Your task to perform on an android device: What's on my calendar tomorrow? Image 0: 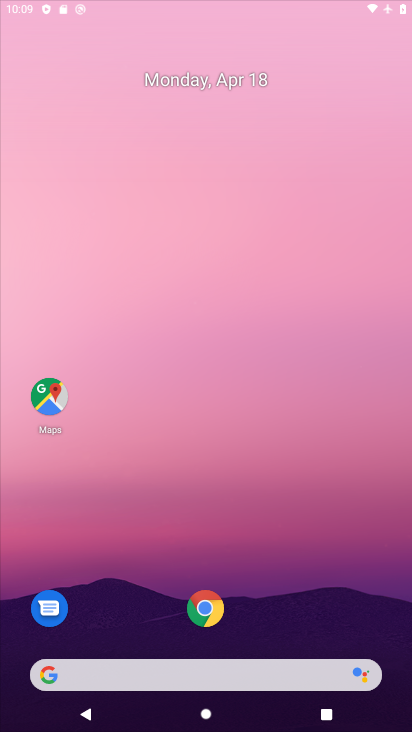
Step 0: drag from (295, 620) to (326, 200)
Your task to perform on an android device: What's on my calendar tomorrow? Image 1: 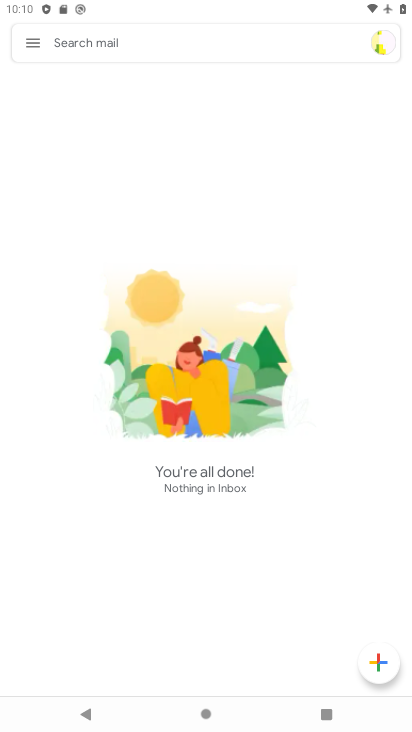
Step 1: press home button
Your task to perform on an android device: What's on my calendar tomorrow? Image 2: 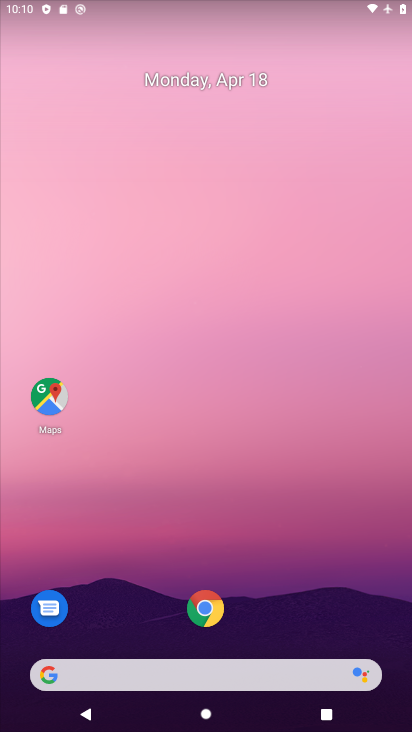
Step 2: drag from (244, 519) to (262, 138)
Your task to perform on an android device: What's on my calendar tomorrow? Image 3: 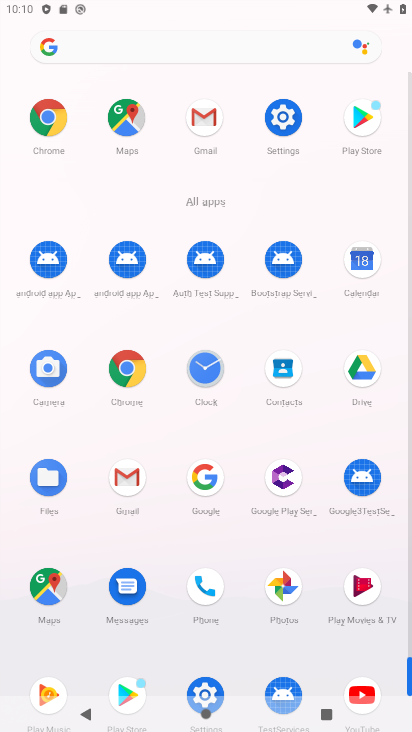
Step 3: click (372, 271)
Your task to perform on an android device: What's on my calendar tomorrow? Image 4: 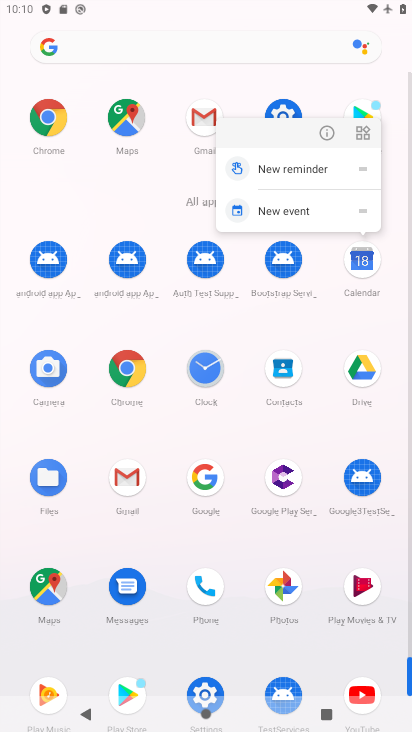
Step 4: click (374, 275)
Your task to perform on an android device: What's on my calendar tomorrow? Image 5: 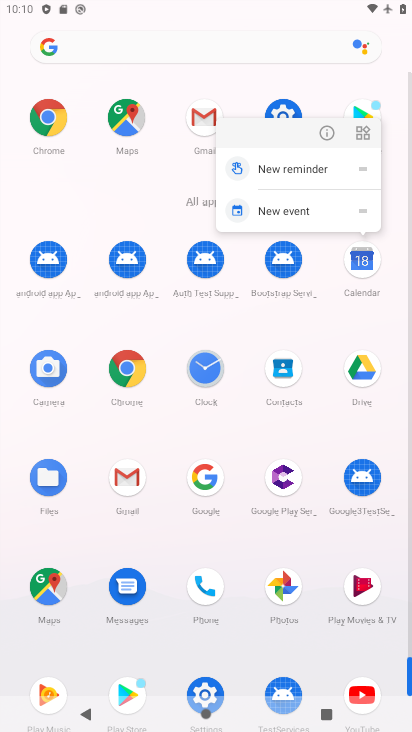
Step 5: click (374, 275)
Your task to perform on an android device: What's on my calendar tomorrow? Image 6: 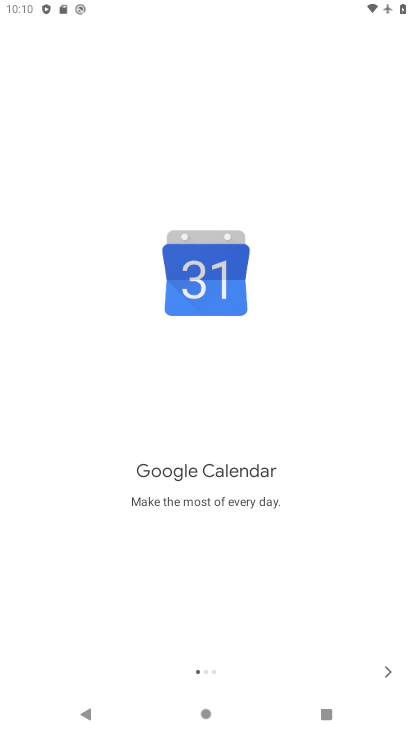
Step 6: click (385, 666)
Your task to perform on an android device: What's on my calendar tomorrow? Image 7: 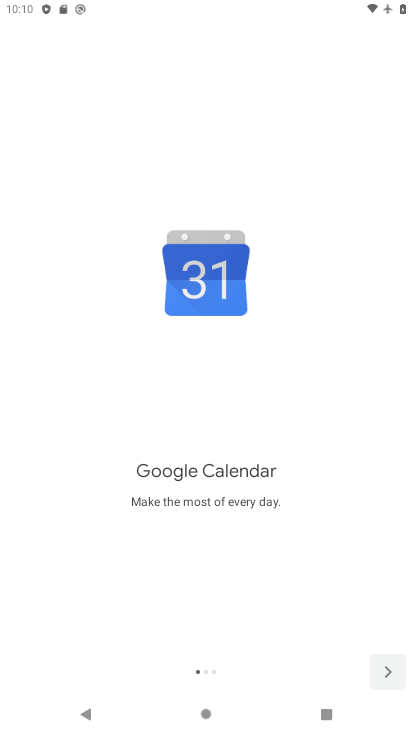
Step 7: click (382, 667)
Your task to perform on an android device: What's on my calendar tomorrow? Image 8: 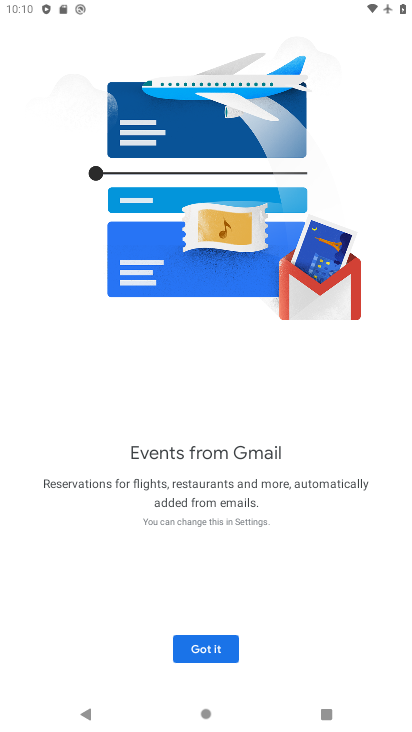
Step 8: click (202, 651)
Your task to perform on an android device: What's on my calendar tomorrow? Image 9: 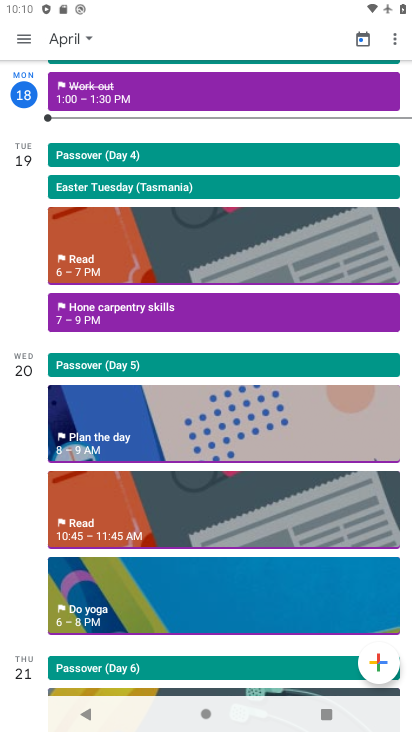
Step 9: click (65, 39)
Your task to perform on an android device: What's on my calendar tomorrow? Image 10: 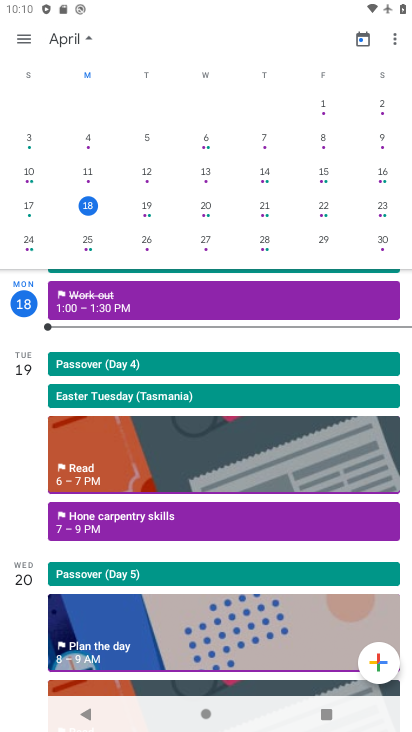
Step 10: click (152, 214)
Your task to perform on an android device: What's on my calendar tomorrow? Image 11: 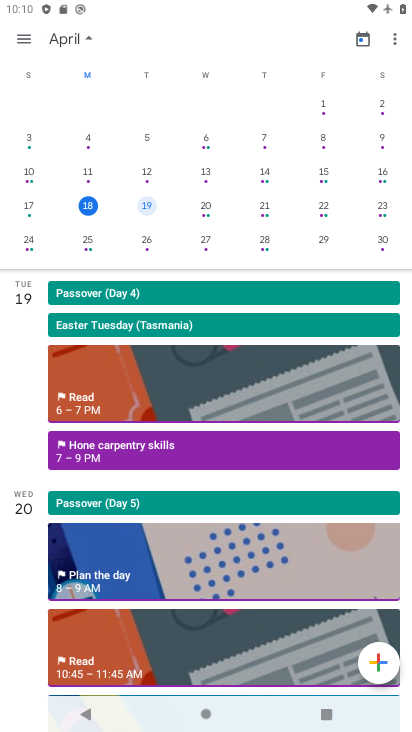
Step 11: task complete